Your task to perform on an android device: Go to Wikipedia Image 0: 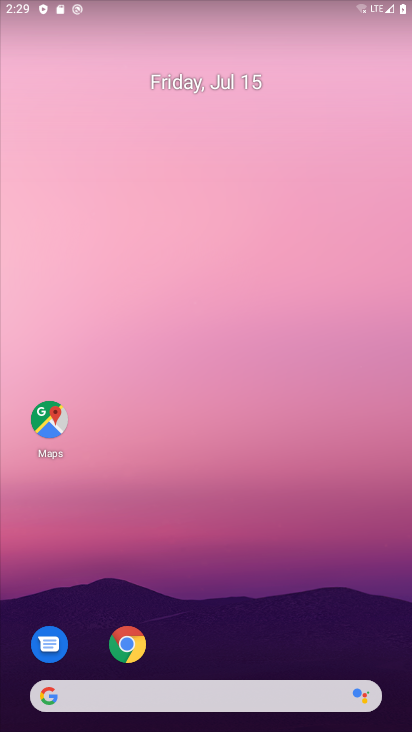
Step 0: drag from (310, 588) to (371, 29)
Your task to perform on an android device: Go to Wikipedia Image 1: 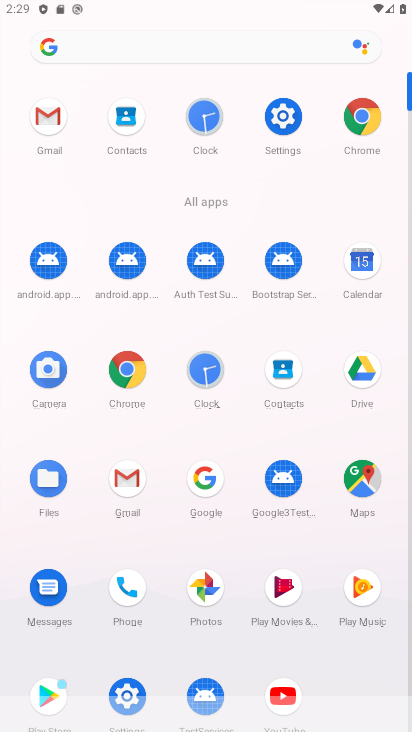
Step 1: click (119, 365)
Your task to perform on an android device: Go to Wikipedia Image 2: 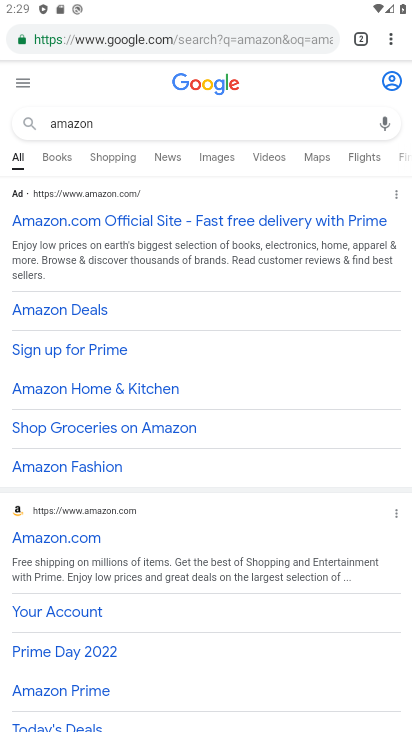
Step 2: click (139, 36)
Your task to perform on an android device: Go to Wikipedia Image 3: 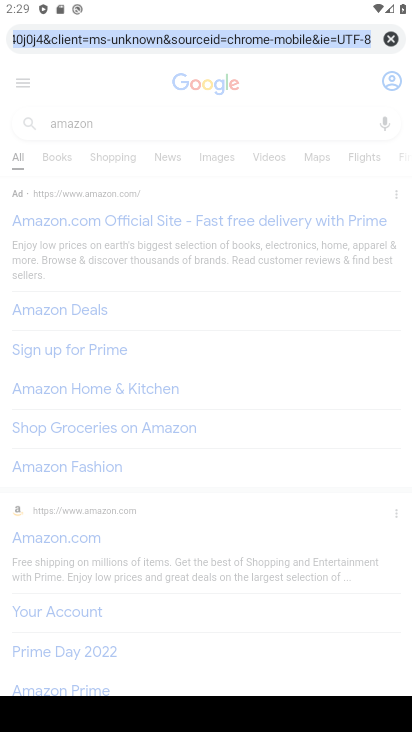
Step 3: type "wikipedia"
Your task to perform on an android device: Go to Wikipedia Image 4: 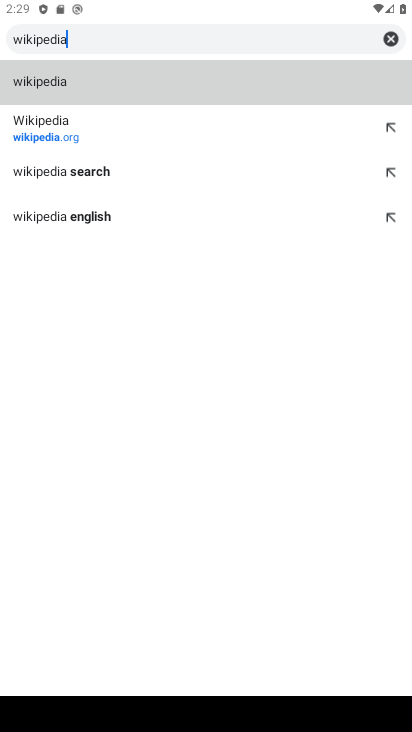
Step 4: click (111, 94)
Your task to perform on an android device: Go to Wikipedia Image 5: 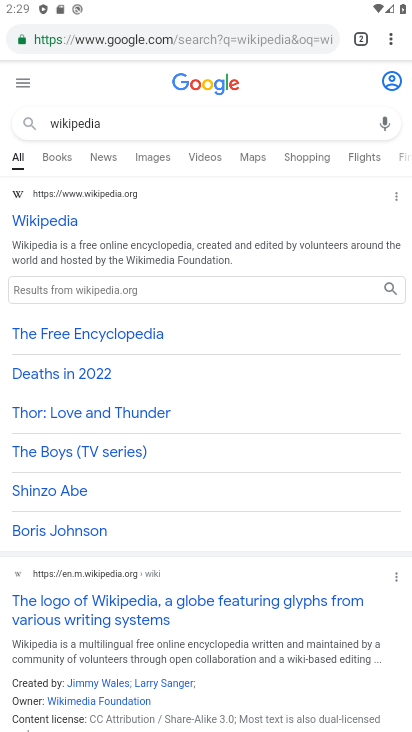
Step 5: task complete